Your task to perform on an android device: turn pop-ups off in chrome Image 0: 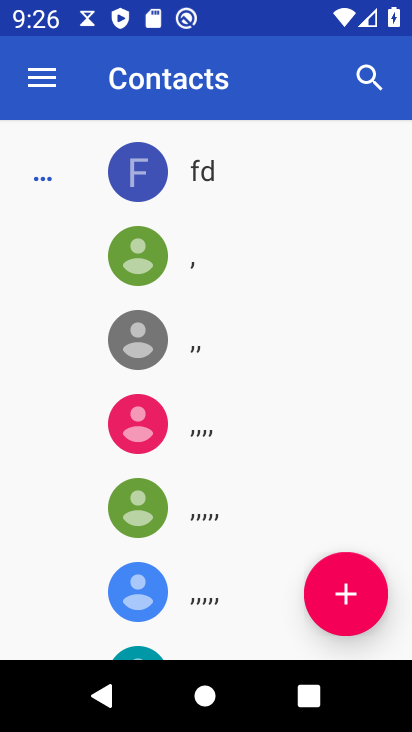
Step 0: press home button
Your task to perform on an android device: turn pop-ups off in chrome Image 1: 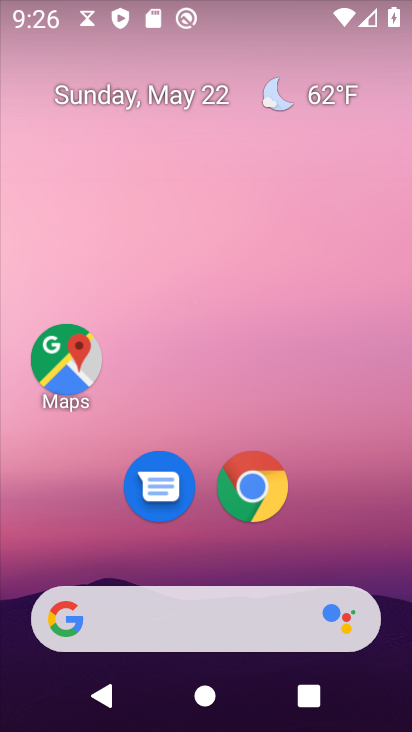
Step 1: click (257, 486)
Your task to perform on an android device: turn pop-ups off in chrome Image 2: 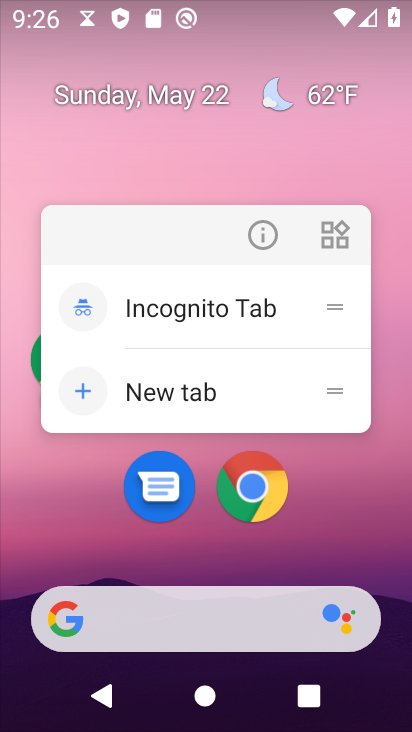
Step 2: click (260, 484)
Your task to perform on an android device: turn pop-ups off in chrome Image 3: 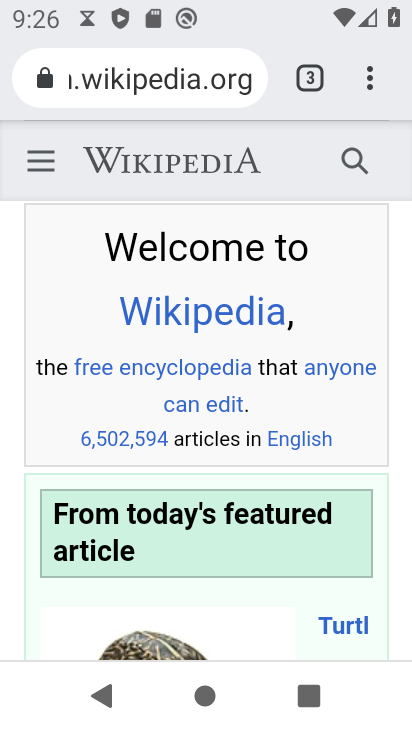
Step 3: click (367, 73)
Your task to perform on an android device: turn pop-ups off in chrome Image 4: 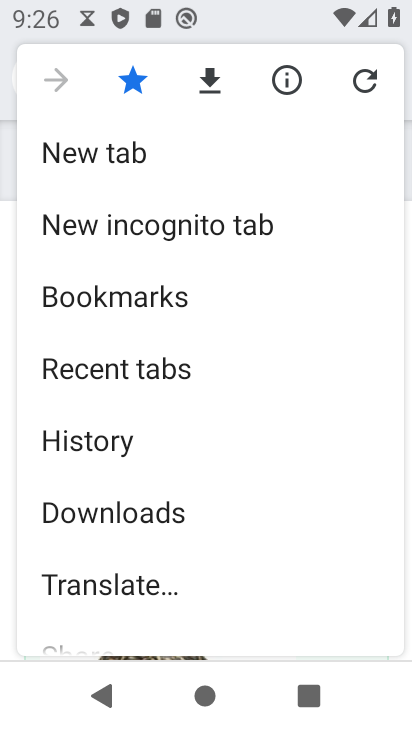
Step 4: drag from (208, 586) to (241, 212)
Your task to perform on an android device: turn pop-ups off in chrome Image 5: 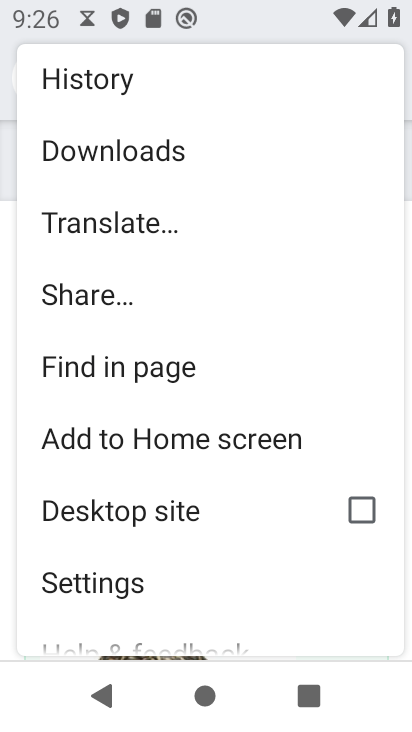
Step 5: click (161, 576)
Your task to perform on an android device: turn pop-ups off in chrome Image 6: 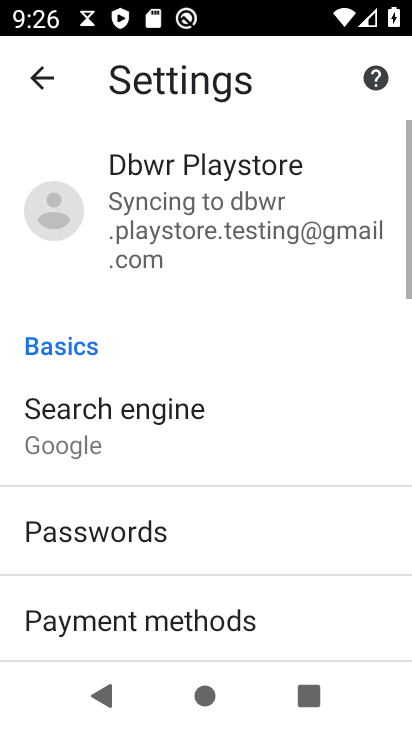
Step 6: drag from (201, 586) to (242, 102)
Your task to perform on an android device: turn pop-ups off in chrome Image 7: 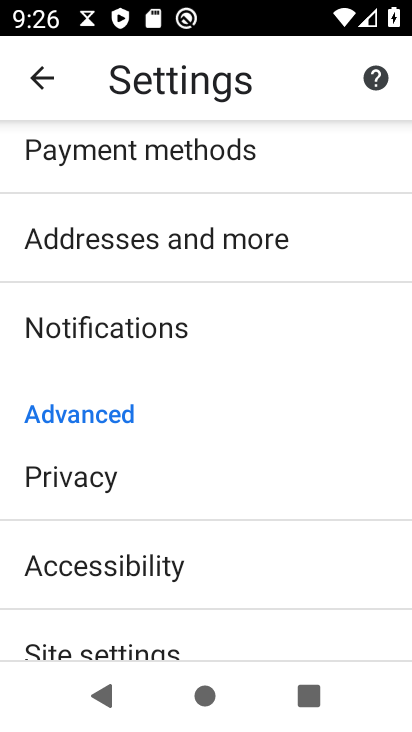
Step 7: drag from (190, 618) to (224, 239)
Your task to perform on an android device: turn pop-ups off in chrome Image 8: 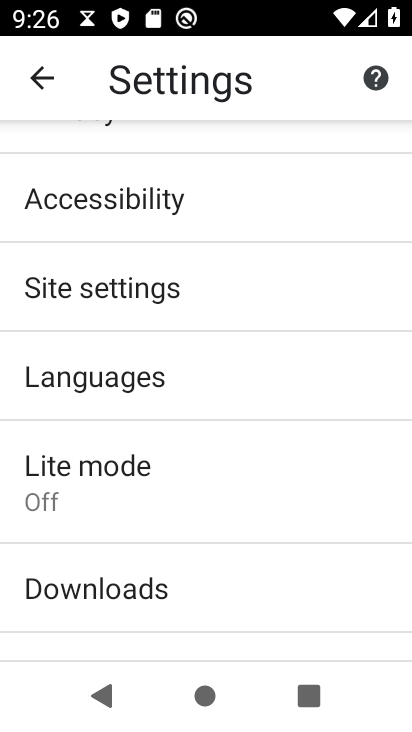
Step 8: click (201, 278)
Your task to perform on an android device: turn pop-ups off in chrome Image 9: 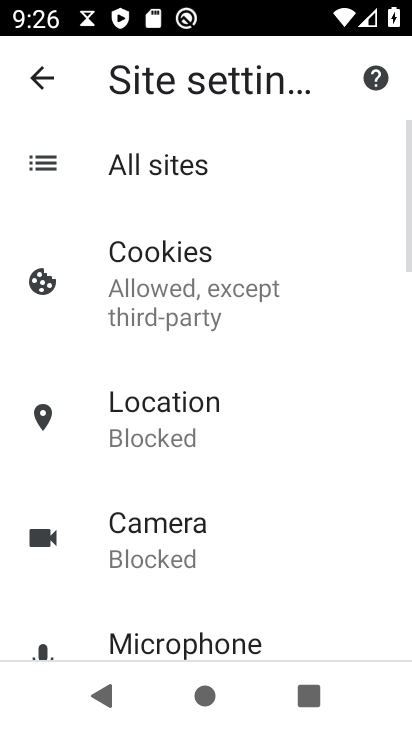
Step 9: drag from (162, 570) to (177, 148)
Your task to perform on an android device: turn pop-ups off in chrome Image 10: 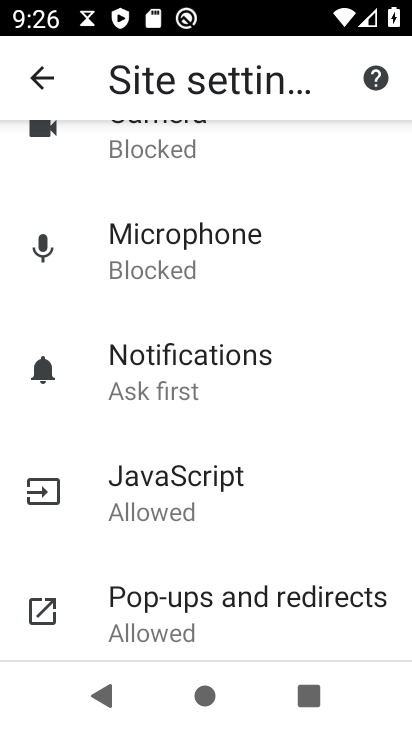
Step 10: click (172, 607)
Your task to perform on an android device: turn pop-ups off in chrome Image 11: 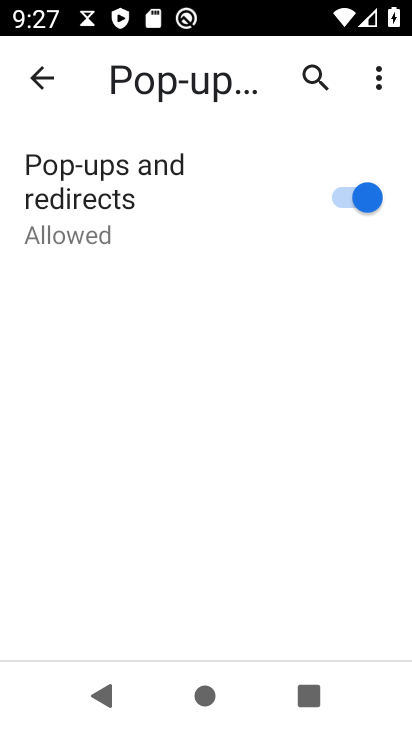
Step 11: click (346, 190)
Your task to perform on an android device: turn pop-ups off in chrome Image 12: 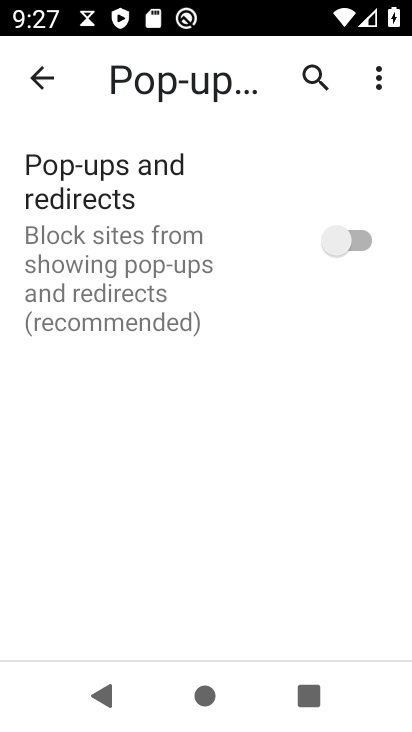
Step 12: task complete